Your task to perform on an android device: Add "bose soundsport free" to the cart on target.com Image 0: 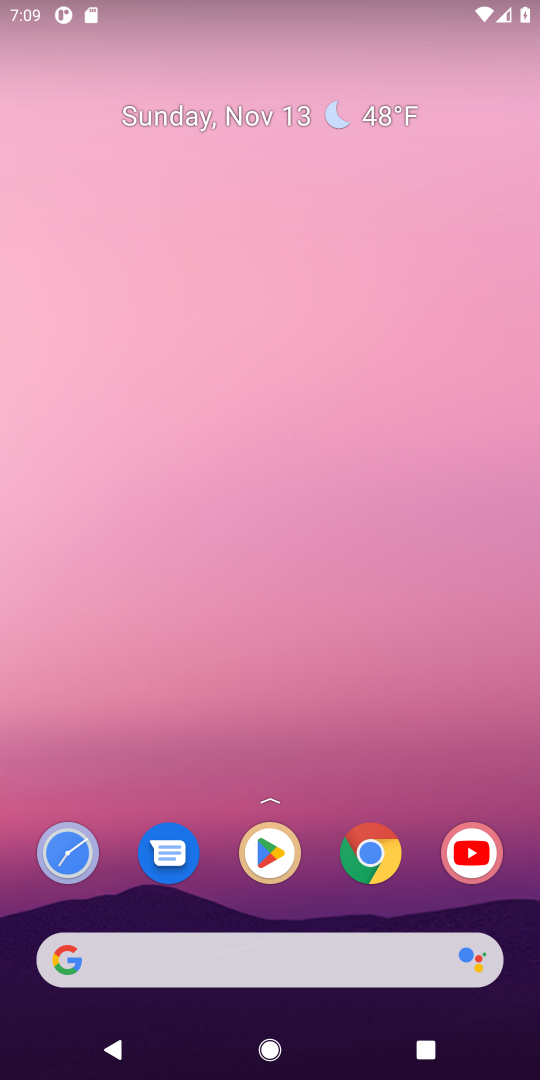
Step 0: press home button
Your task to perform on an android device: Add "bose soundsport free" to the cart on target.com Image 1: 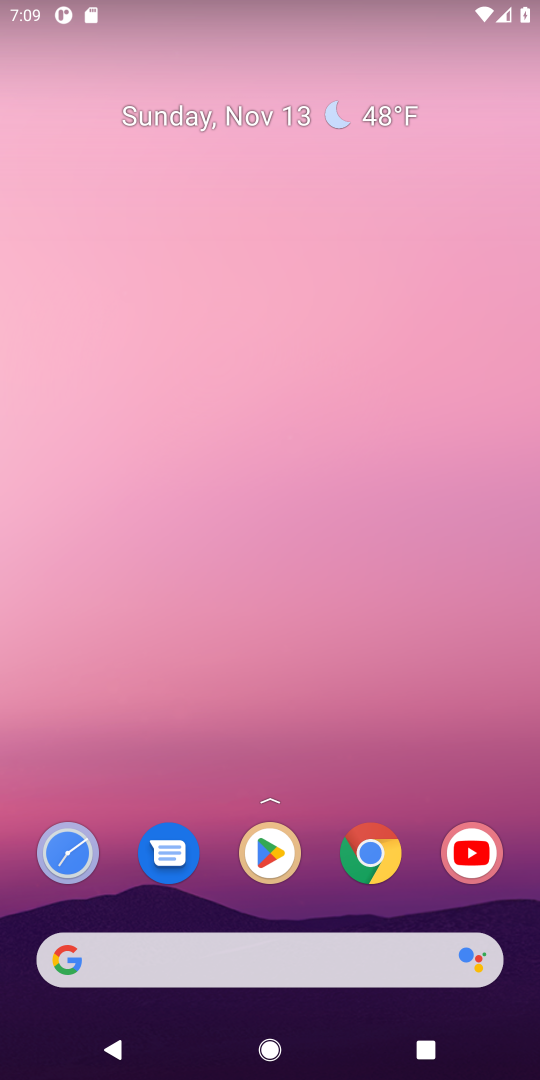
Step 1: click (114, 965)
Your task to perform on an android device: Add "bose soundsport free" to the cart on target.com Image 2: 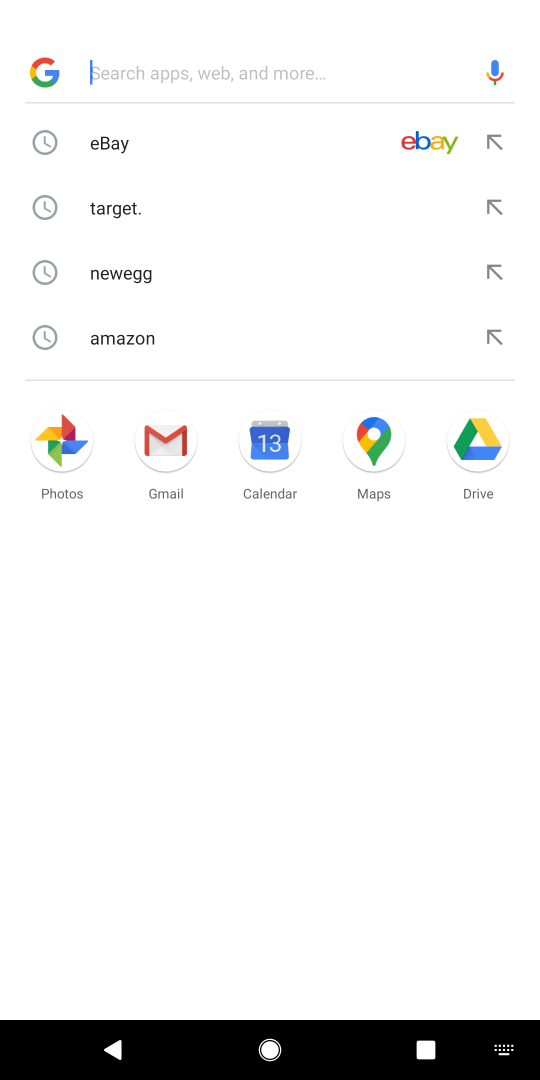
Step 2: press enter
Your task to perform on an android device: Add "bose soundsport free" to the cart on target.com Image 3: 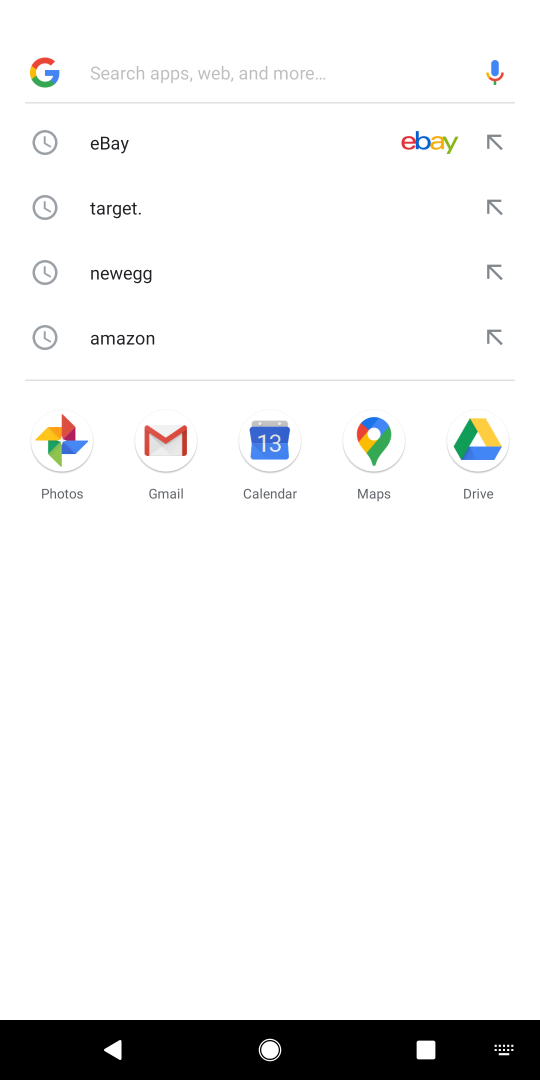
Step 3: type "target.com"
Your task to perform on an android device: Add "bose soundsport free" to the cart on target.com Image 4: 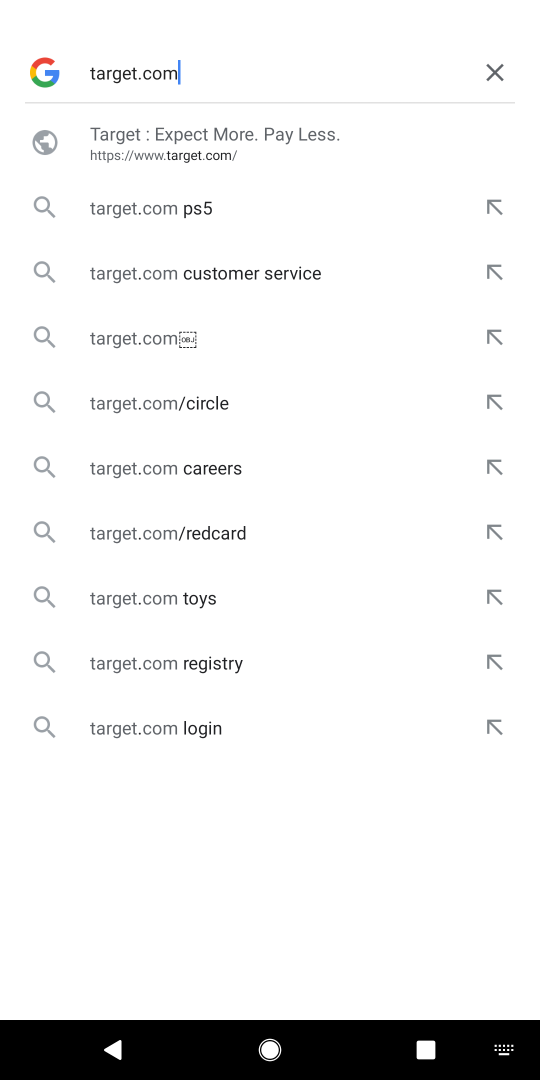
Step 4: press enter
Your task to perform on an android device: Add "bose soundsport free" to the cart on target.com Image 5: 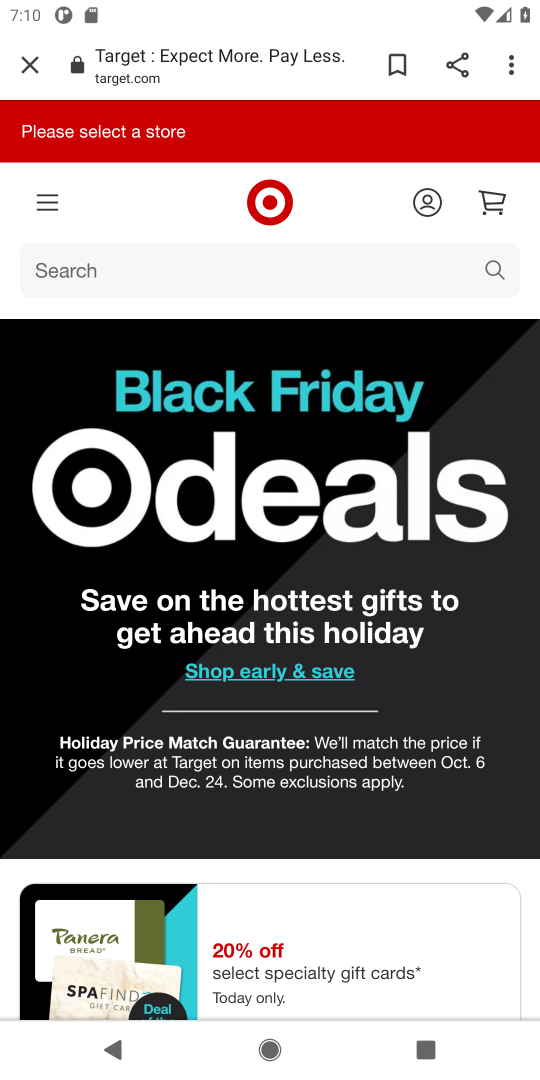
Step 5: click (81, 262)
Your task to perform on an android device: Add "bose soundsport free" to the cart on target.com Image 6: 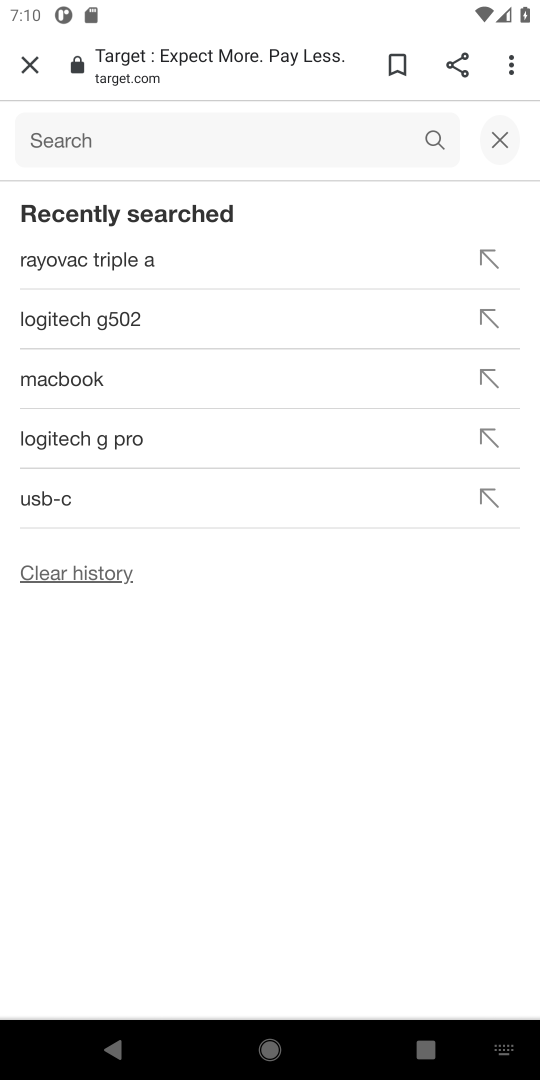
Step 6: type "bose soundsport free"
Your task to perform on an android device: Add "bose soundsport free" to the cart on target.com Image 7: 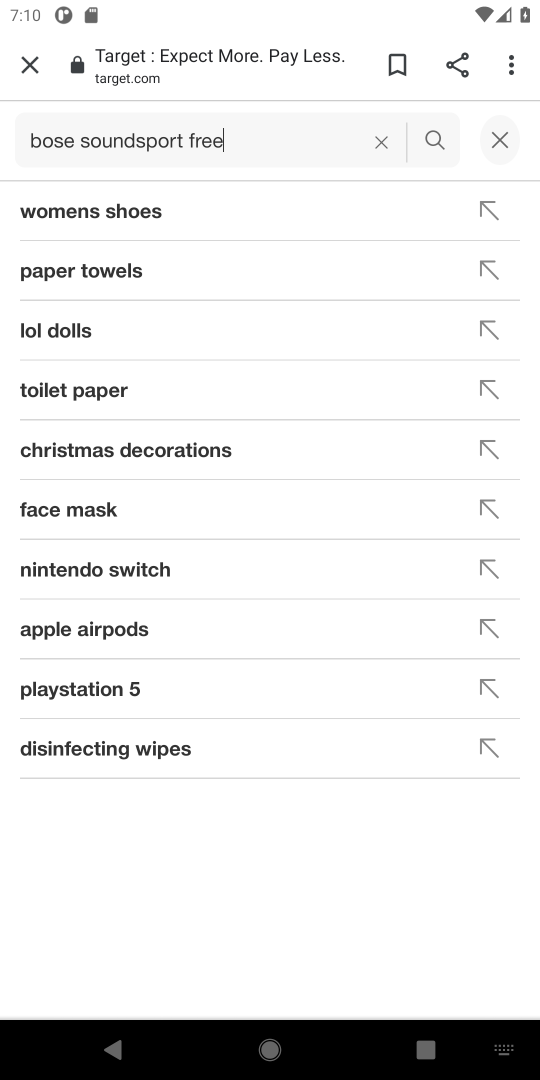
Step 7: press enter
Your task to perform on an android device: Add "bose soundsport free" to the cart on target.com Image 8: 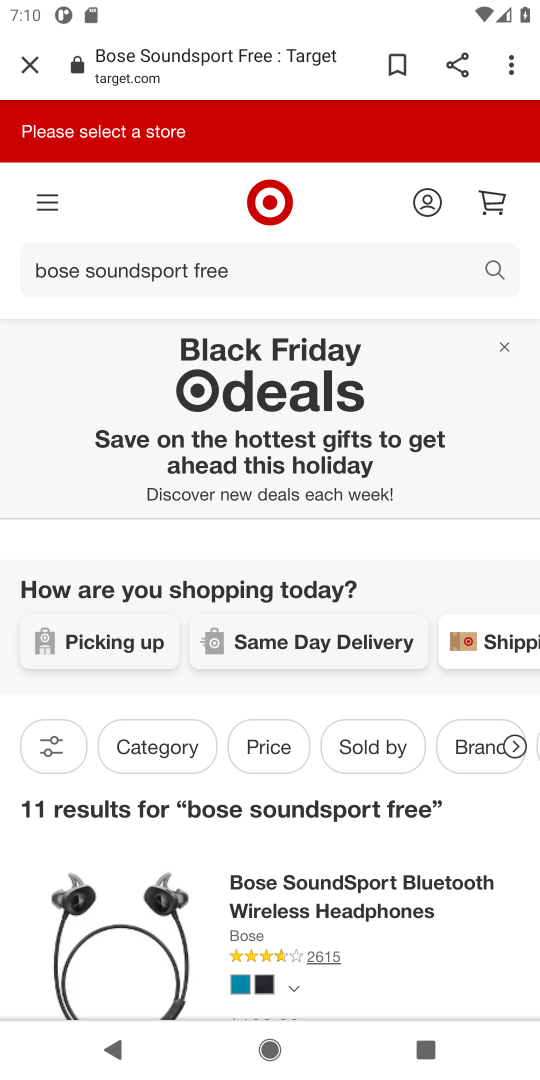
Step 8: task complete